Your task to perform on an android device: open chrome and create a bookmark for the current page Image 0: 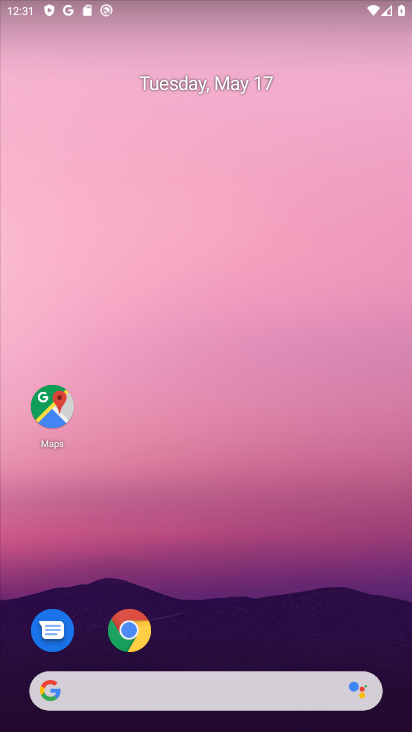
Step 0: click (129, 643)
Your task to perform on an android device: open chrome and create a bookmark for the current page Image 1: 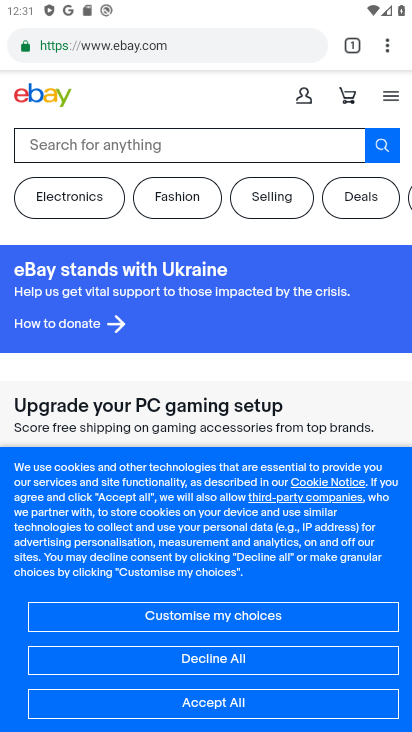
Step 1: click (384, 53)
Your task to perform on an android device: open chrome and create a bookmark for the current page Image 2: 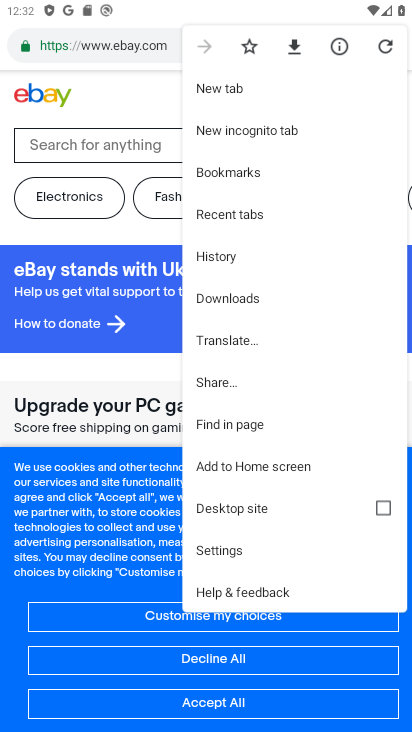
Step 2: click (257, 53)
Your task to perform on an android device: open chrome and create a bookmark for the current page Image 3: 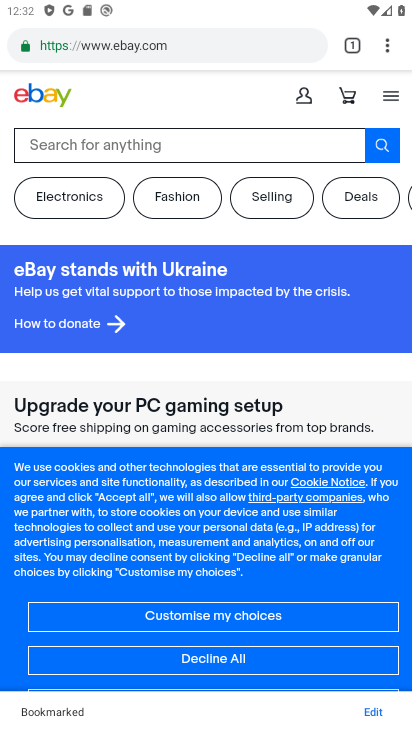
Step 3: task complete